Your task to perform on an android device: snooze an email in the gmail app Image 0: 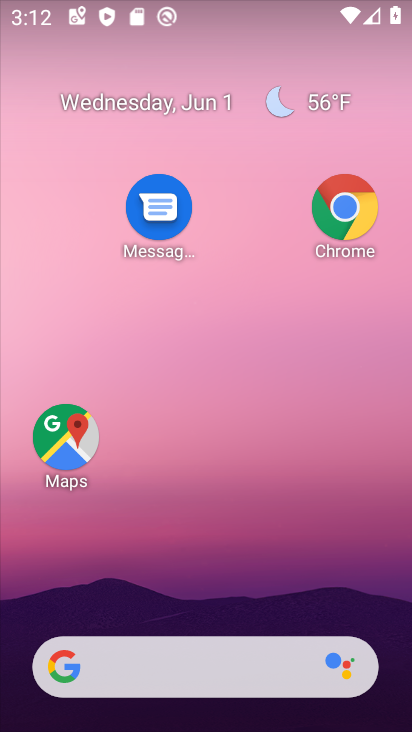
Step 0: drag from (211, 571) to (291, 63)
Your task to perform on an android device: snooze an email in the gmail app Image 1: 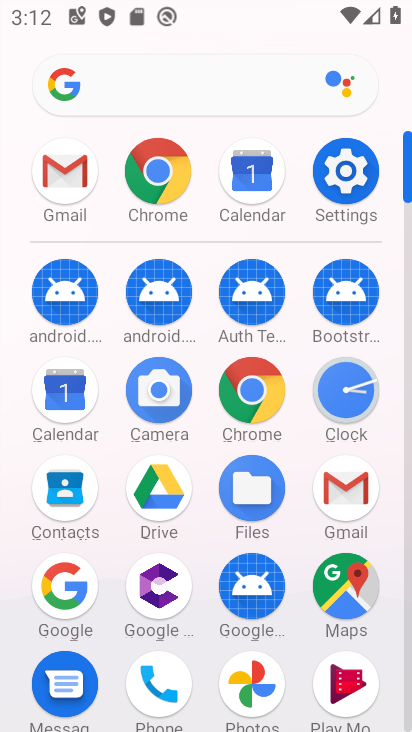
Step 1: click (346, 484)
Your task to perform on an android device: snooze an email in the gmail app Image 2: 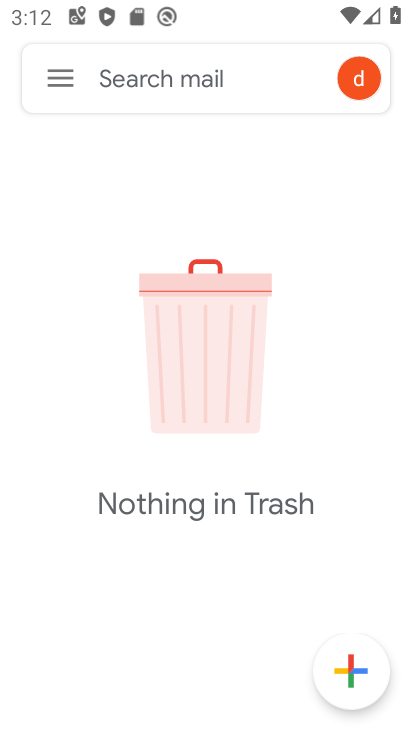
Step 2: click (61, 64)
Your task to perform on an android device: snooze an email in the gmail app Image 3: 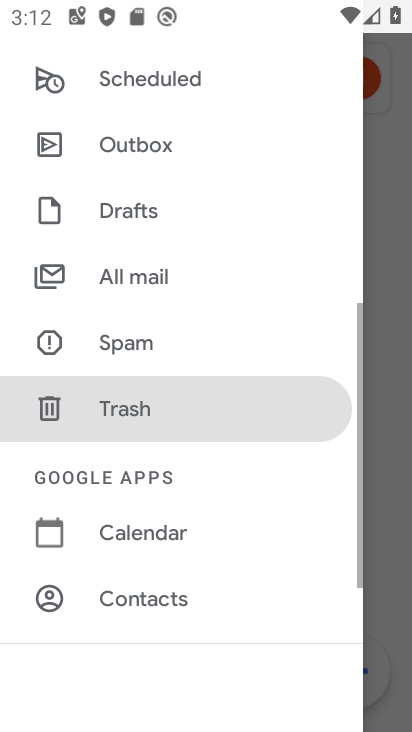
Step 3: drag from (185, 259) to (218, 726)
Your task to perform on an android device: snooze an email in the gmail app Image 4: 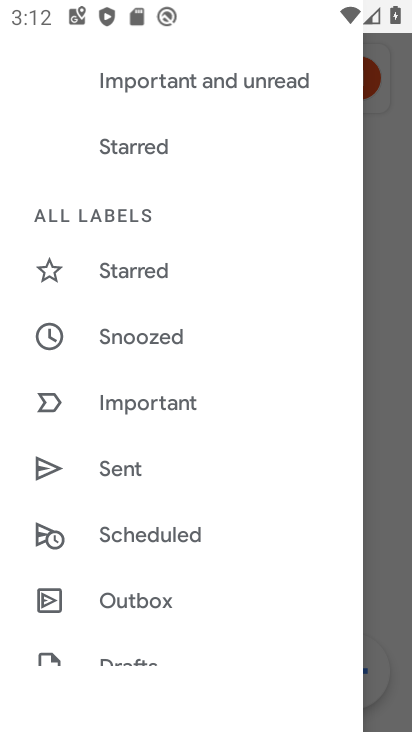
Step 4: click (150, 338)
Your task to perform on an android device: snooze an email in the gmail app Image 5: 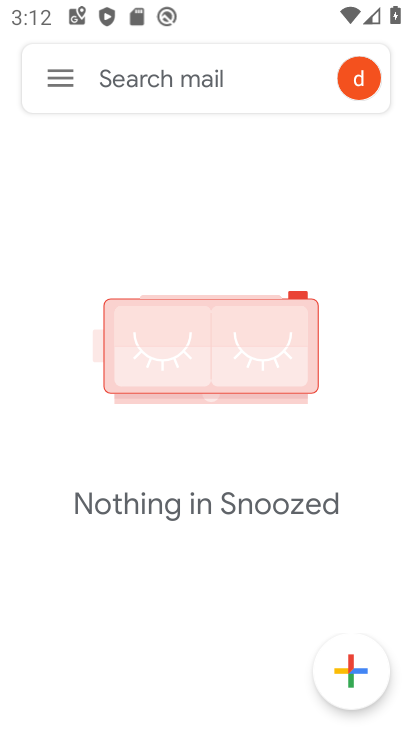
Step 5: task complete